Your task to perform on an android device: visit the assistant section in the google photos Image 0: 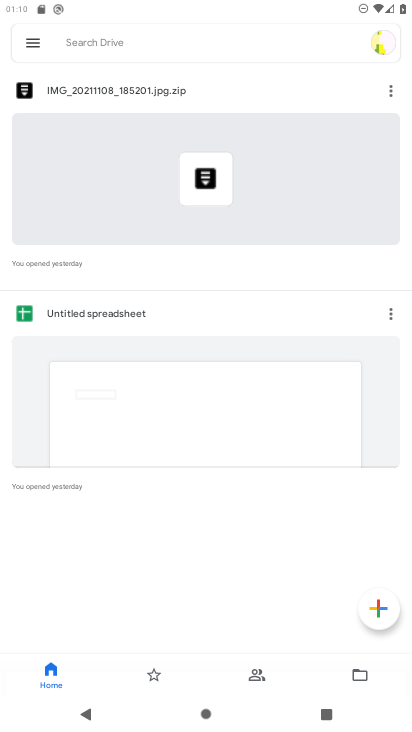
Step 0: press home button
Your task to perform on an android device: visit the assistant section in the google photos Image 1: 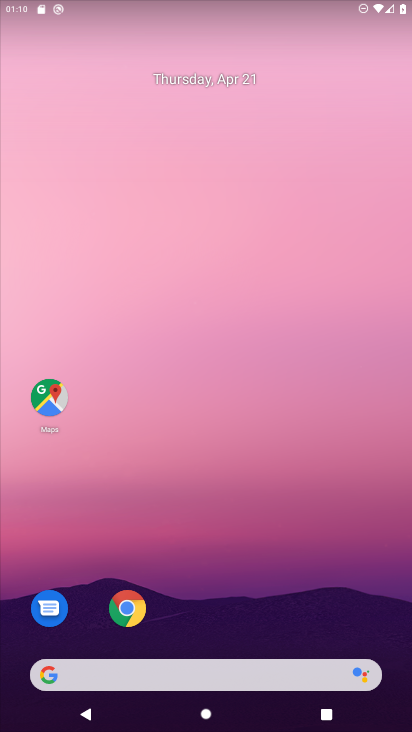
Step 1: drag from (202, 621) to (203, 186)
Your task to perform on an android device: visit the assistant section in the google photos Image 2: 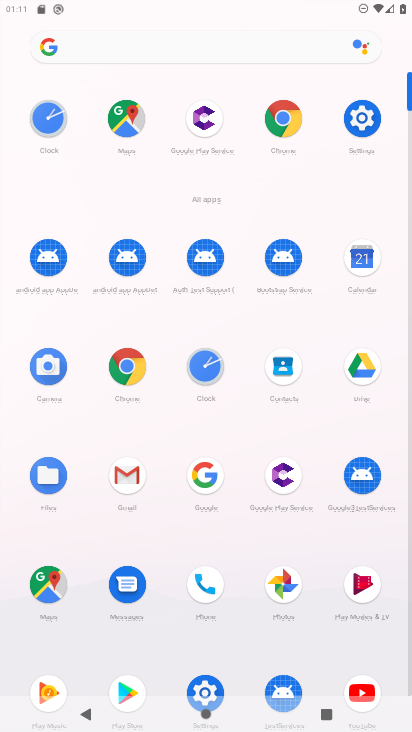
Step 2: click (283, 578)
Your task to perform on an android device: visit the assistant section in the google photos Image 3: 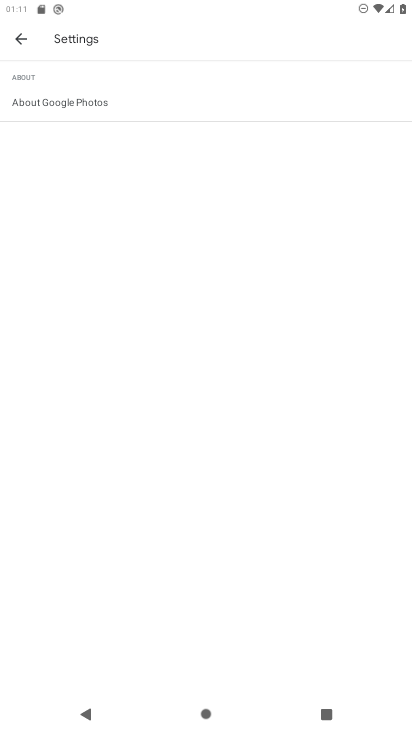
Step 3: press back button
Your task to perform on an android device: visit the assistant section in the google photos Image 4: 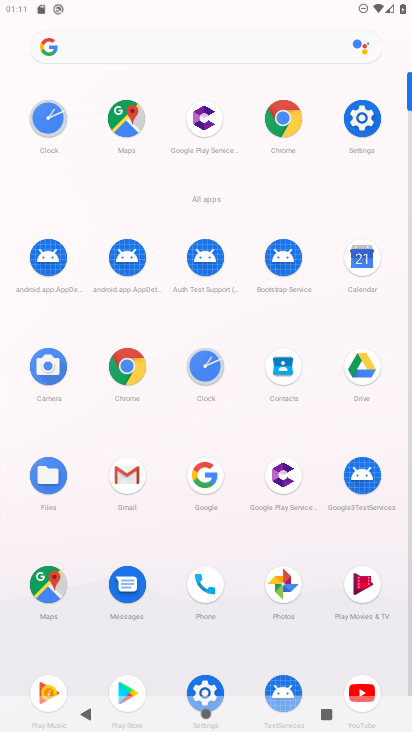
Step 4: click (280, 590)
Your task to perform on an android device: visit the assistant section in the google photos Image 5: 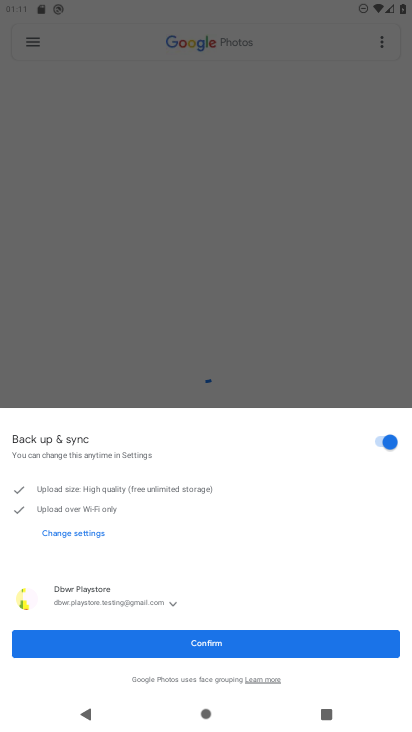
Step 5: click (256, 641)
Your task to perform on an android device: visit the assistant section in the google photos Image 6: 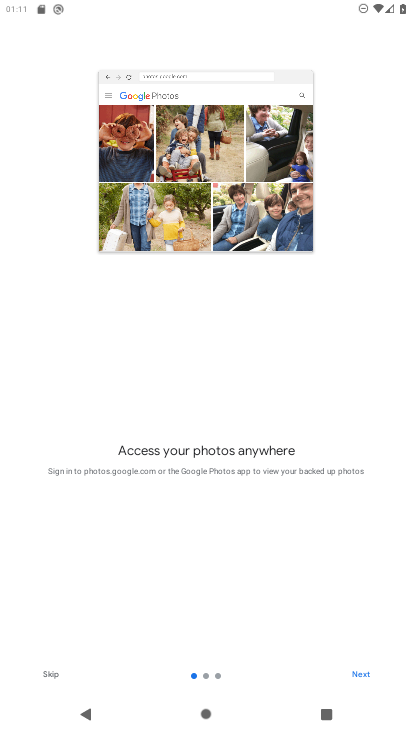
Step 6: click (354, 676)
Your task to perform on an android device: visit the assistant section in the google photos Image 7: 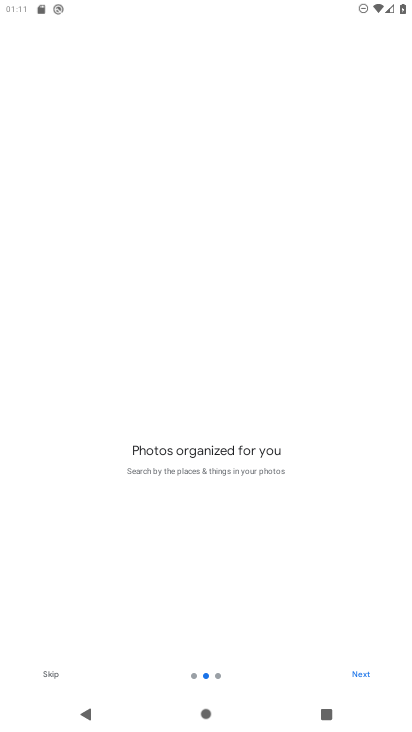
Step 7: click (355, 670)
Your task to perform on an android device: visit the assistant section in the google photos Image 8: 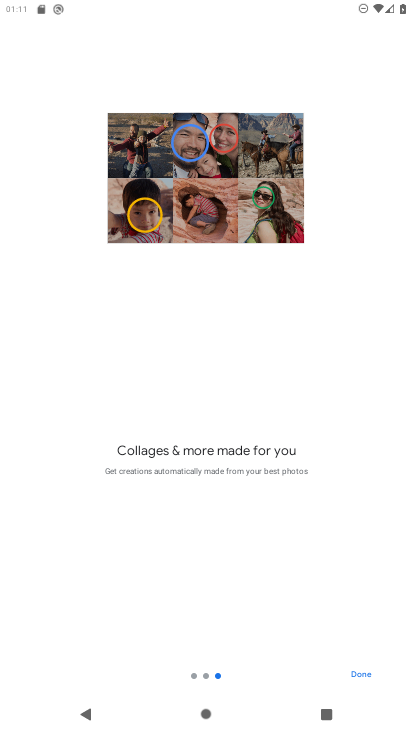
Step 8: click (355, 670)
Your task to perform on an android device: visit the assistant section in the google photos Image 9: 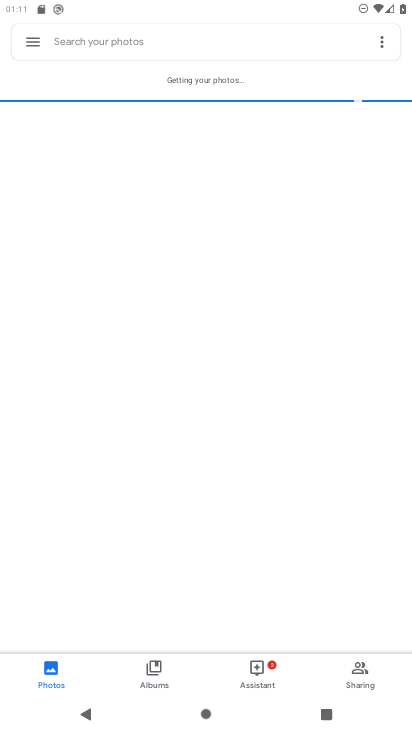
Step 9: click (251, 668)
Your task to perform on an android device: visit the assistant section in the google photos Image 10: 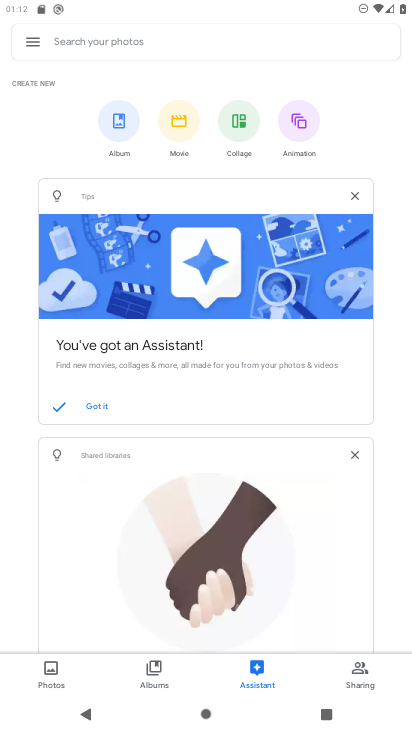
Step 10: task complete